Your task to perform on an android device: turn on notifications settings in the gmail app Image 0: 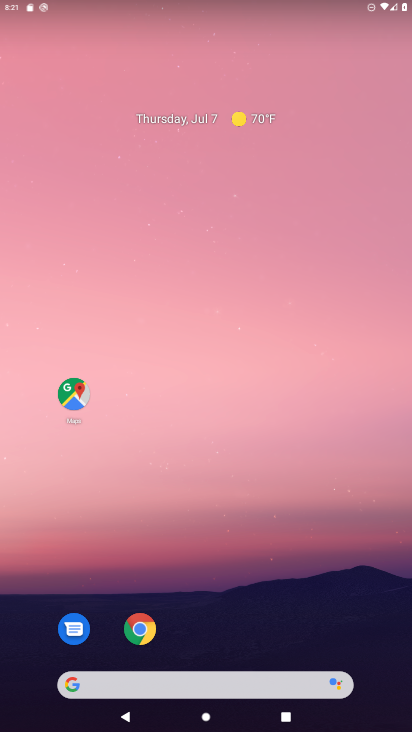
Step 0: drag from (208, 649) to (303, 154)
Your task to perform on an android device: turn on notifications settings in the gmail app Image 1: 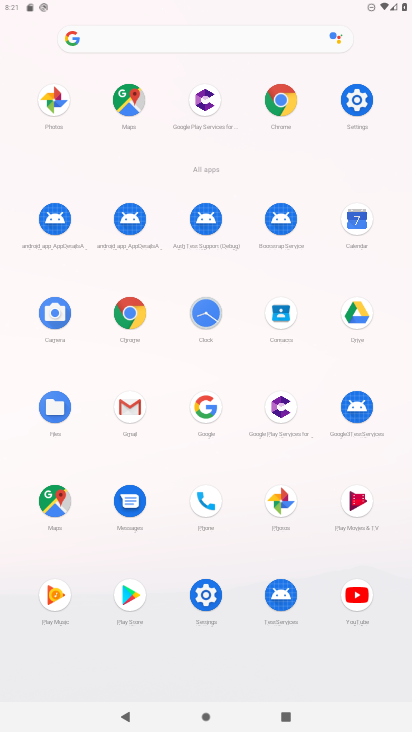
Step 1: click (122, 415)
Your task to perform on an android device: turn on notifications settings in the gmail app Image 2: 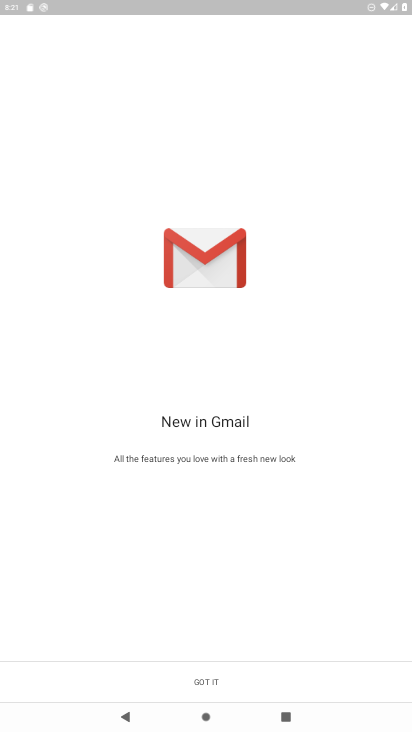
Step 2: click (225, 689)
Your task to perform on an android device: turn on notifications settings in the gmail app Image 3: 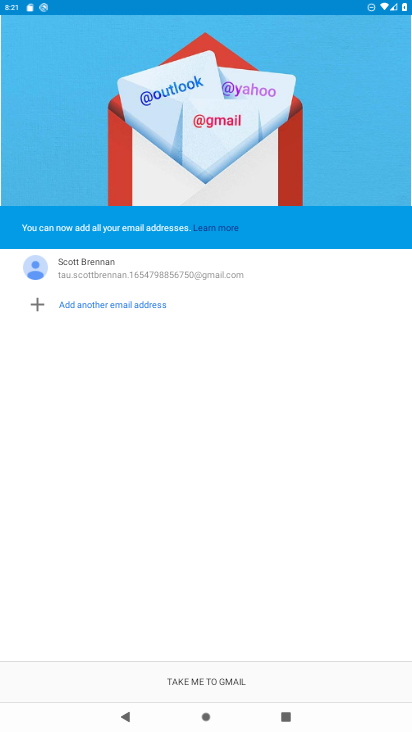
Step 3: click (225, 689)
Your task to perform on an android device: turn on notifications settings in the gmail app Image 4: 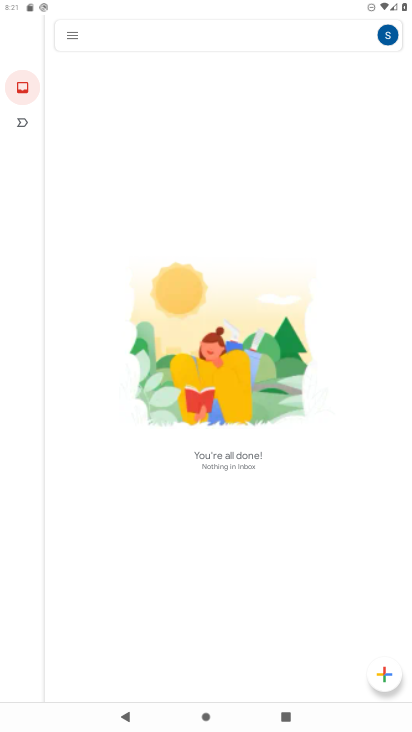
Step 4: click (75, 46)
Your task to perform on an android device: turn on notifications settings in the gmail app Image 5: 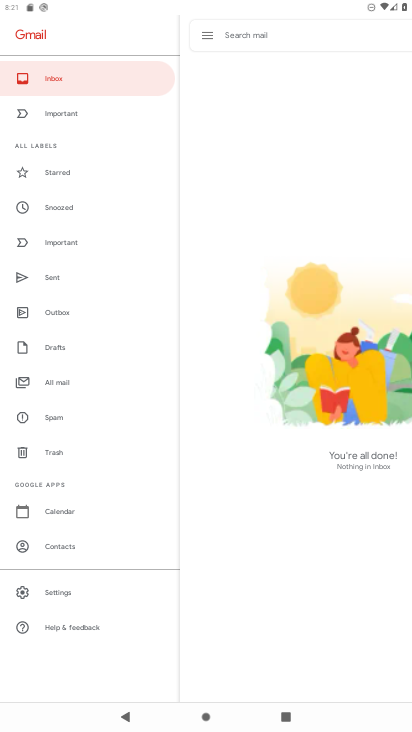
Step 5: click (87, 589)
Your task to perform on an android device: turn on notifications settings in the gmail app Image 6: 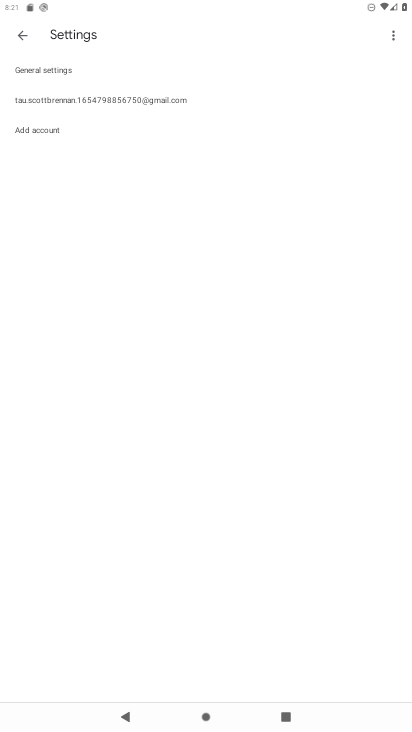
Step 6: click (159, 95)
Your task to perform on an android device: turn on notifications settings in the gmail app Image 7: 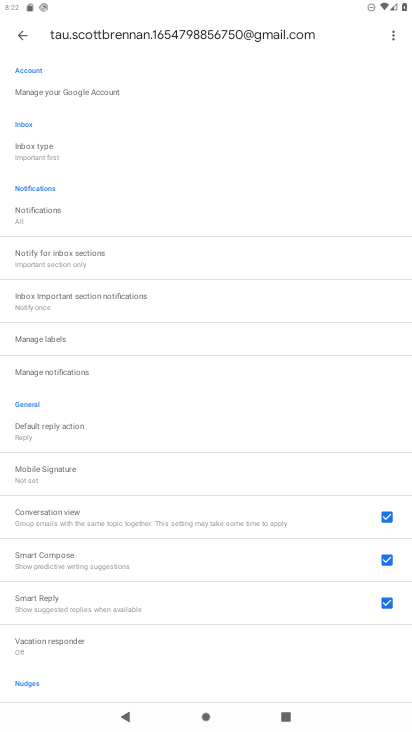
Step 7: click (108, 372)
Your task to perform on an android device: turn on notifications settings in the gmail app Image 8: 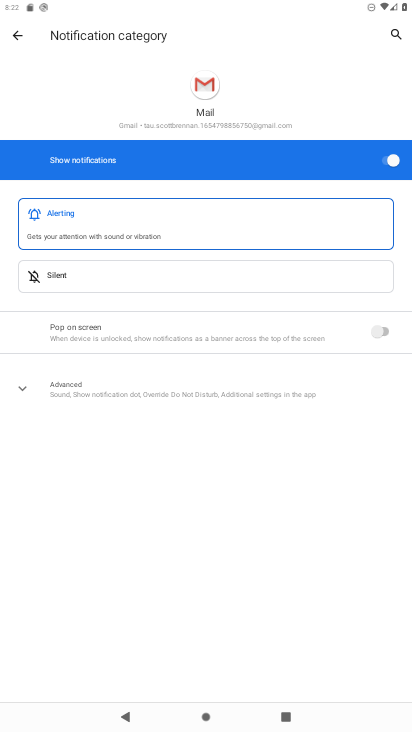
Step 8: task complete